Your task to perform on an android device: empty trash in the gmail app Image 0: 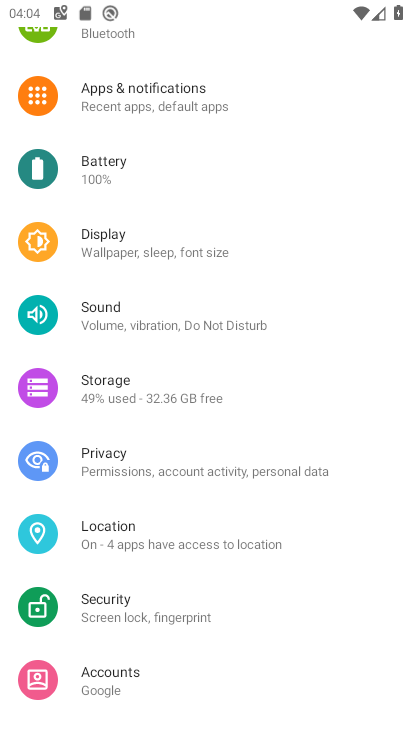
Step 0: press home button
Your task to perform on an android device: empty trash in the gmail app Image 1: 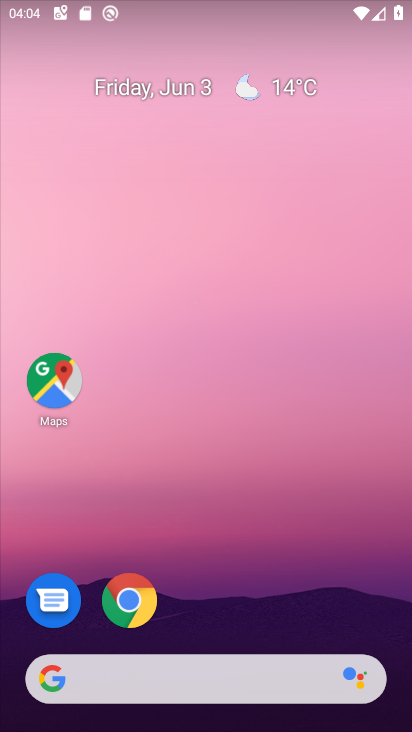
Step 1: drag from (317, 538) to (244, 156)
Your task to perform on an android device: empty trash in the gmail app Image 2: 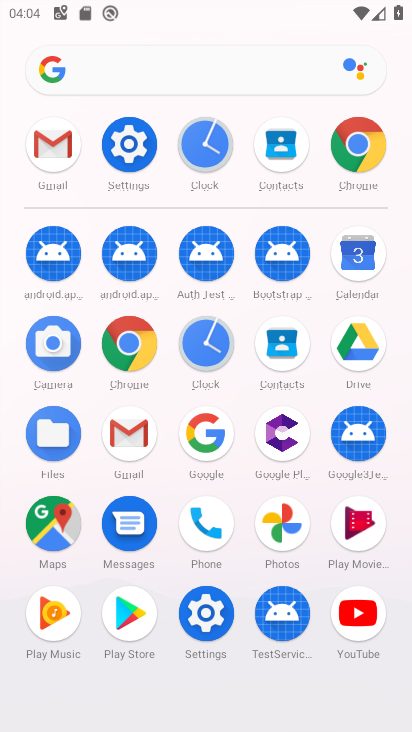
Step 2: click (48, 154)
Your task to perform on an android device: empty trash in the gmail app Image 3: 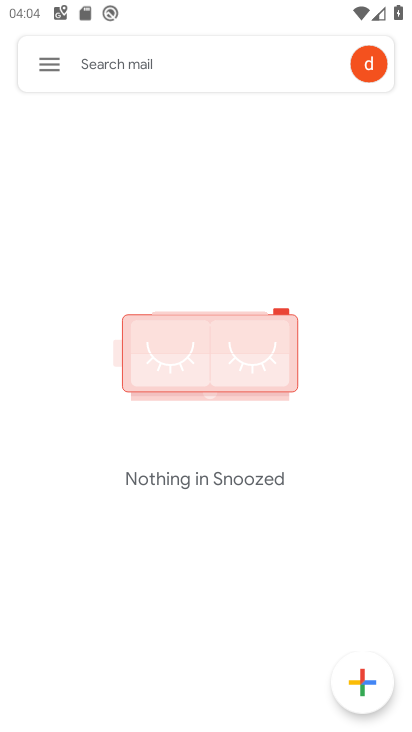
Step 3: click (41, 60)
Your task to perform on an android device: empty trash in the gmail app Image 4: 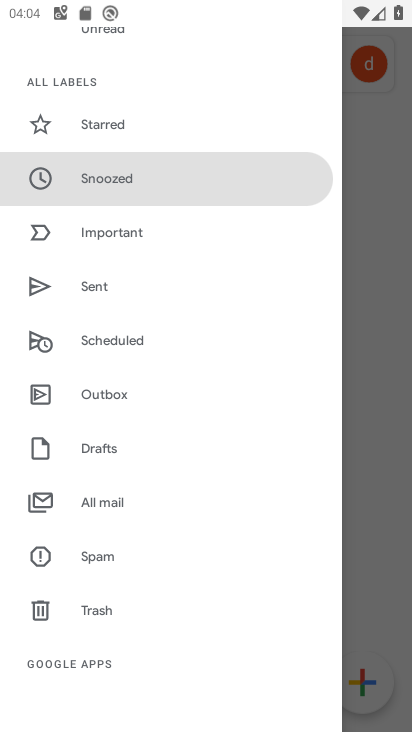
Step 4: click (109, 600)
Your task to perform on an android device: empty trash in the gmail app Image 5: 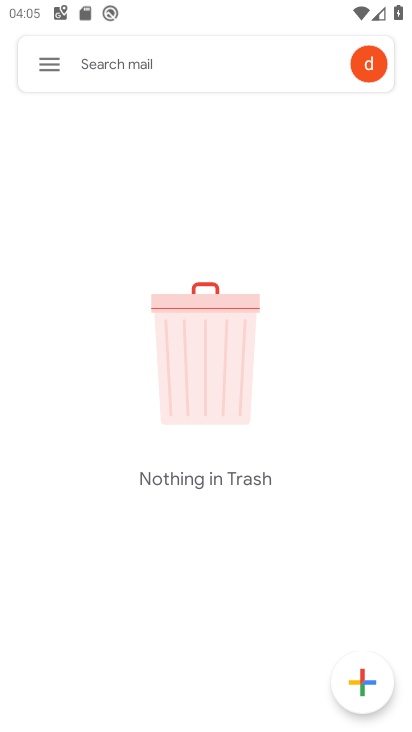
Step 5: task complete